Your task to perform on an android device: toggle data saver in the chrome app Image 0: 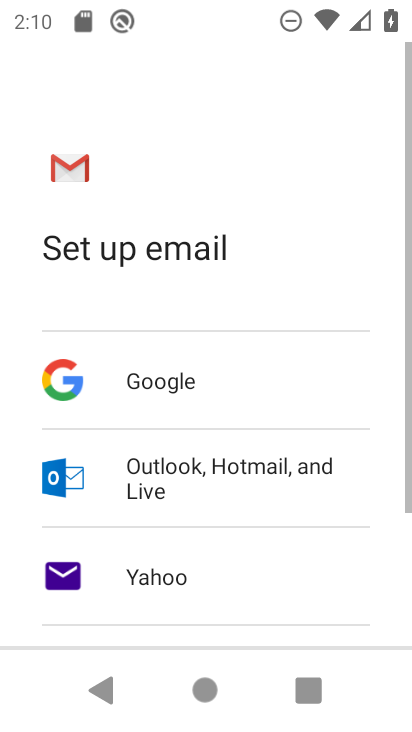
Step 0: press home button
Your task to perform on an android device: toggle data saver in the chrome app Image 1: 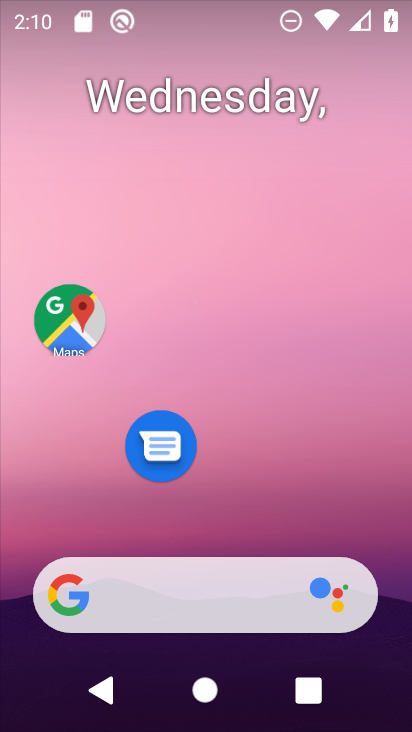
Step 1: drag from (339, 542) to (267, 137)
Your task to perform on an android device: toggle data saver in the chrome app Image 2: 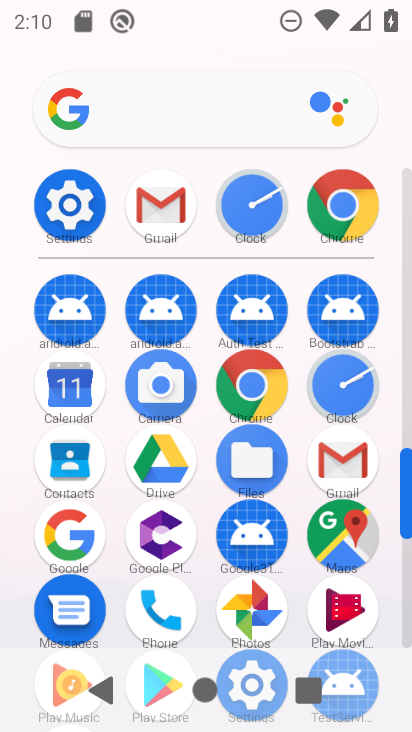
Step 2: click (328, 218)
Your task to perform on an android device: toggle data saver in the chrome app Image 3: 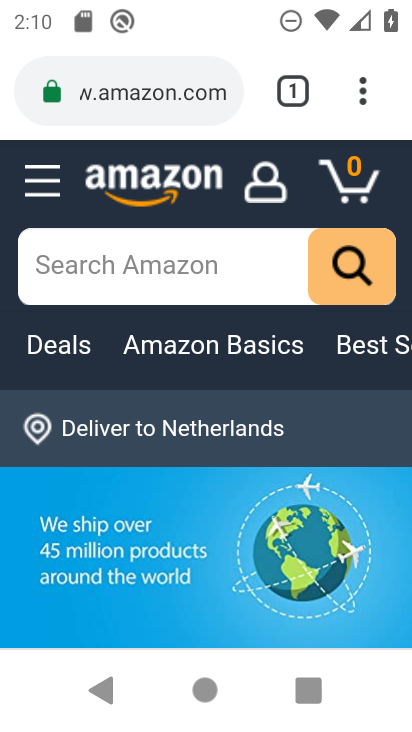
Step 3: click (357, 118)
Your task to perform on an android device: toggle data saver in the chrome app Image 4: 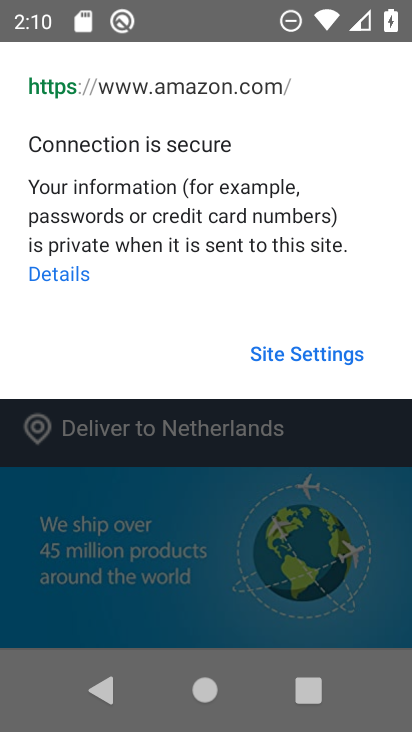
Step 4: click (223, 412)
Your task to perform on an android device: toggle data saver in the chrome app Image 5: 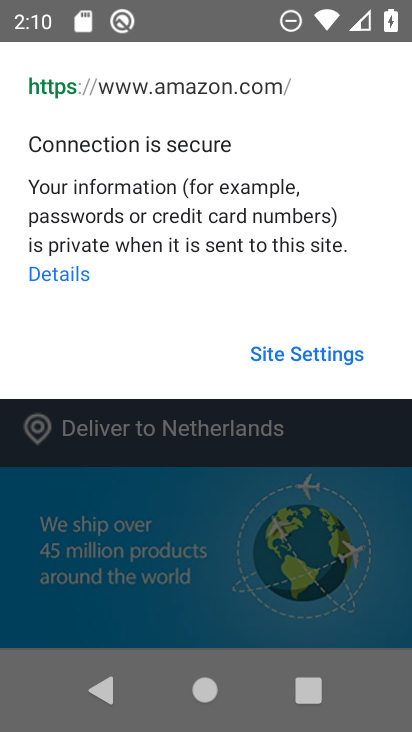
Step 5: click (299, 437)
Your task to perform on an android device: toggle data saver in the chrome app Image 6: 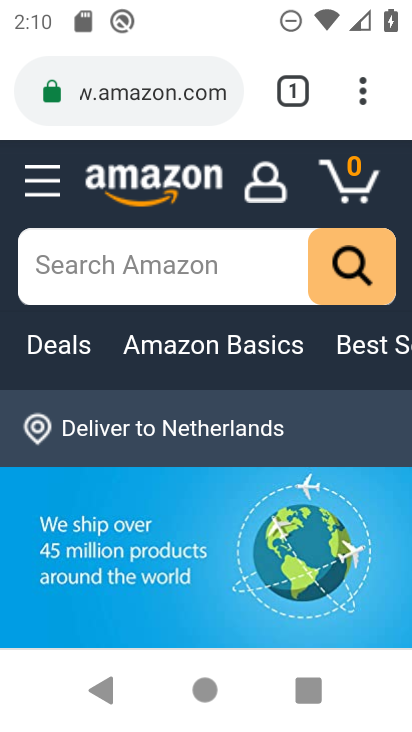
Step 6: click (352, 88)
Your task to perform on an android device: toggle data saver in the chrome app Image 7: 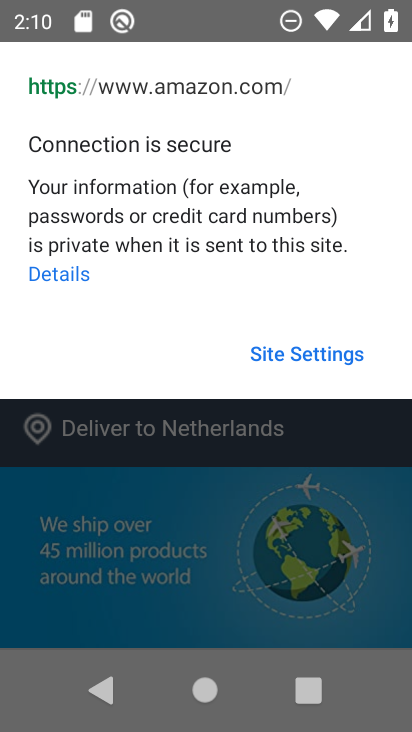
Step 7: click (37, 489)
Your task to perform on an android device: toggle data saver in the chrome app Image 8: 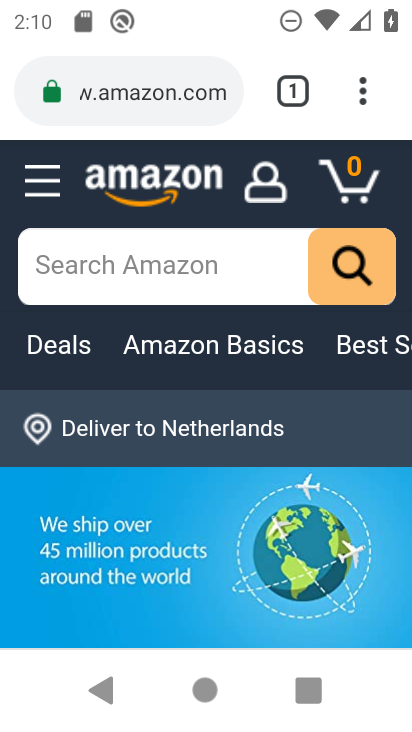
Step 8: click (366, 104)
Your task to perform on an android device: toggle data saver in the chrome app Image 9: 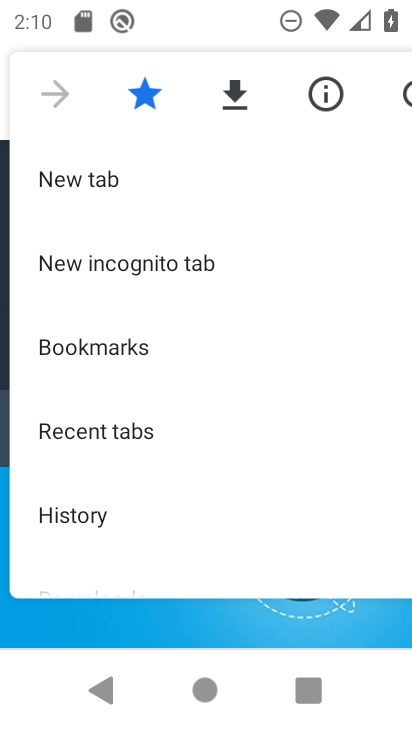
Step 9: drag from (194, 481) to (185, 333)
Your task to perform on an android device: toggle data saver in the chrome app Image 10: 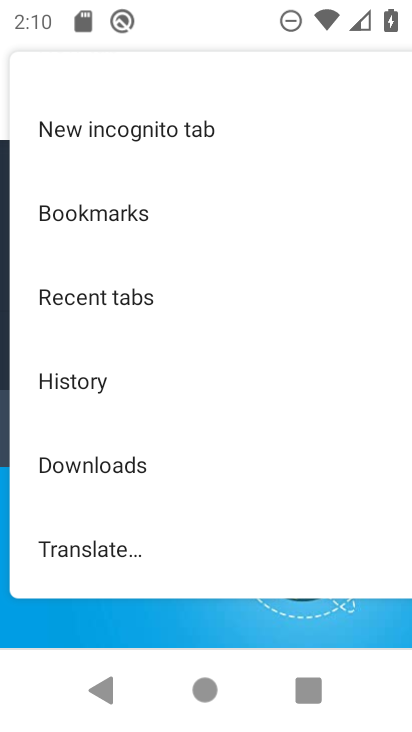
Step 10: drag from (178, 486) to (180, 370)
Your task to perform on an android device: toggle data saver in the chrome app Image 11: 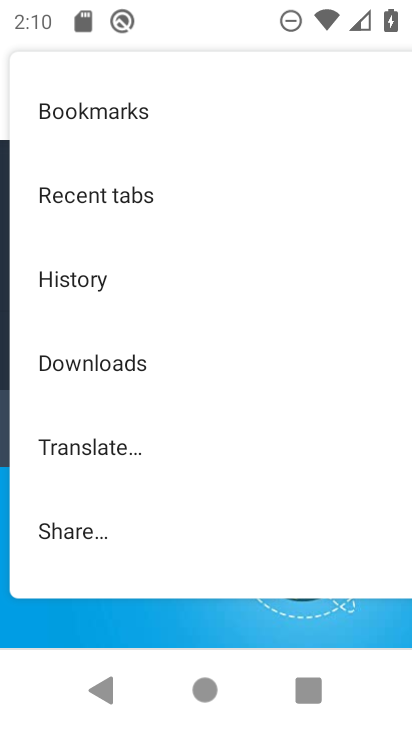
Step 11: drag from (169, 468) to (169, 330)
Your task to perform on an android device: toggle data saver in the chrome app Image 12: 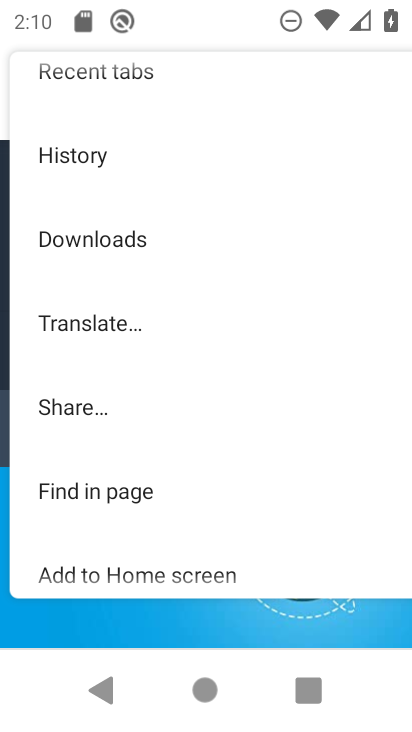
Step 12: drag from (150, 438) to (151, 336)
Your task to perform on an android device: toggle data saver in the chrome app Image 13: 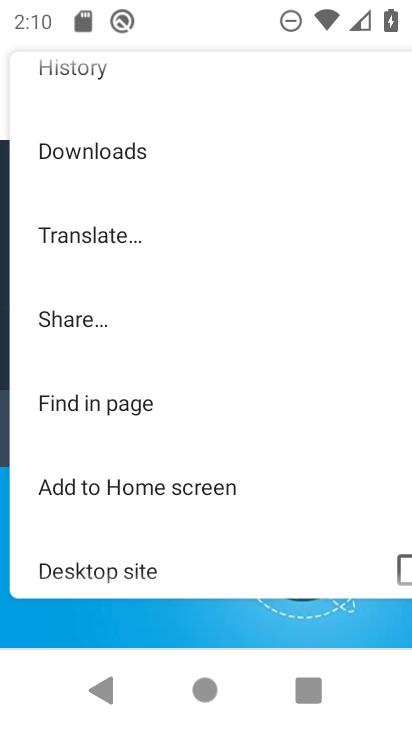
Step 13: drag from (23, 432) to (139, 146)
Your task to perform on an android device: toggle data saver in the chrome app Image 14: 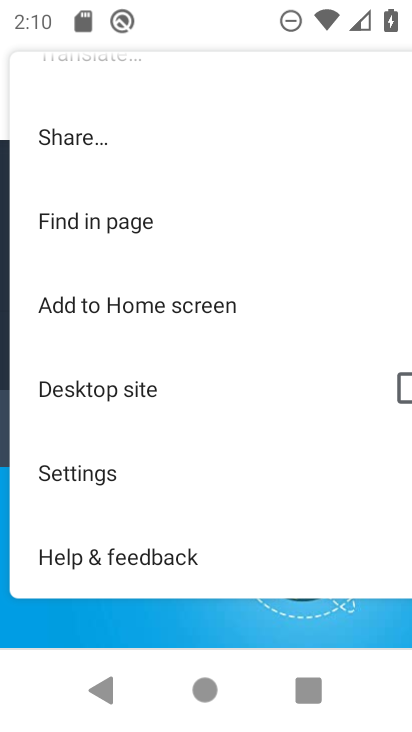
Step 14: click (145, 457)
Your task to perform on an android device: toggle data saver in the chrome app Image 15: 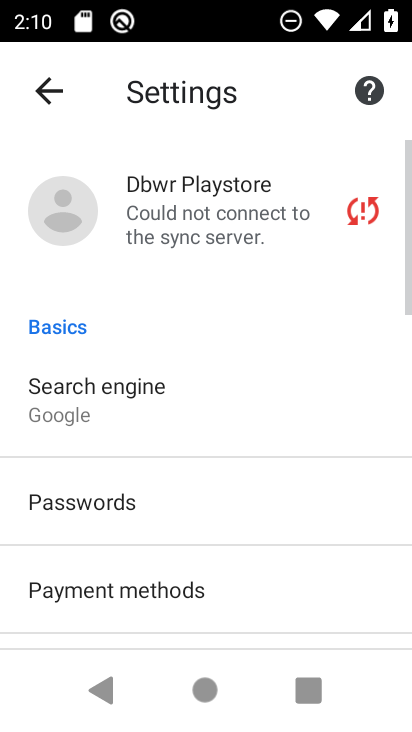
Step 15: drag from (145, 457) to (165, 254)
Your task to perform on an android device: toggle data saver in the chrome app Image 16: 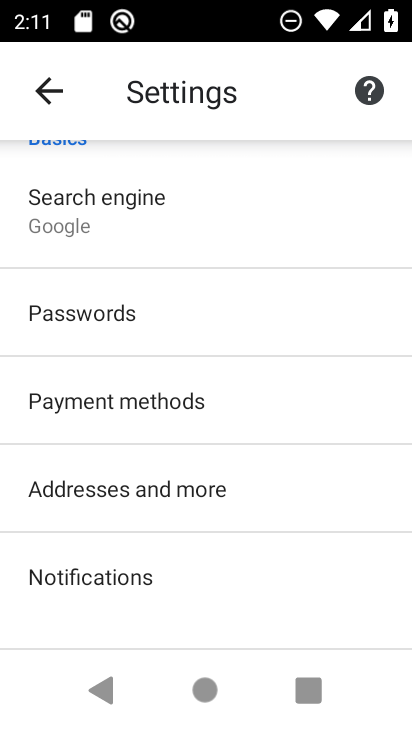
Step 16: drag from (165, 554) to (173, 337)
Your task to perform on an android device: toggle data saver in the chrome app Image 17: 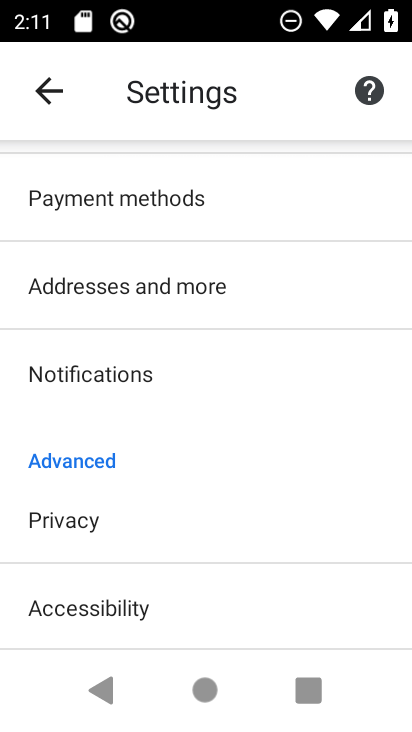
Step 17: drag from (173, 439) to (168, 294)
Your task to perform on an android device: toggle data saver in the chrome app Image 18: 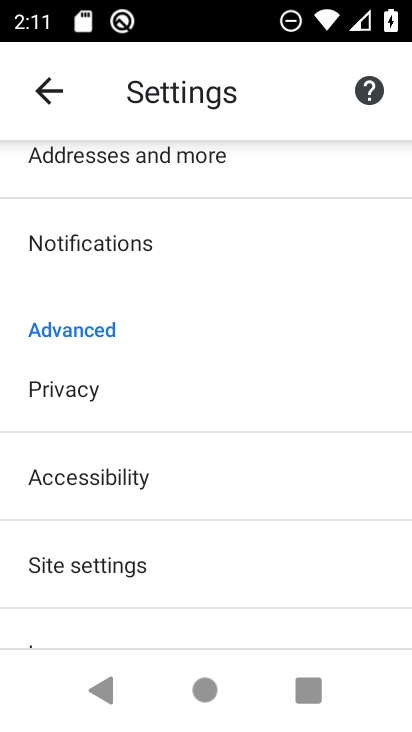
Step 18: drag from (177, 528) to (170, 333)
Your task to perform on an android device: toggle data saver in the chrome app Image 19: 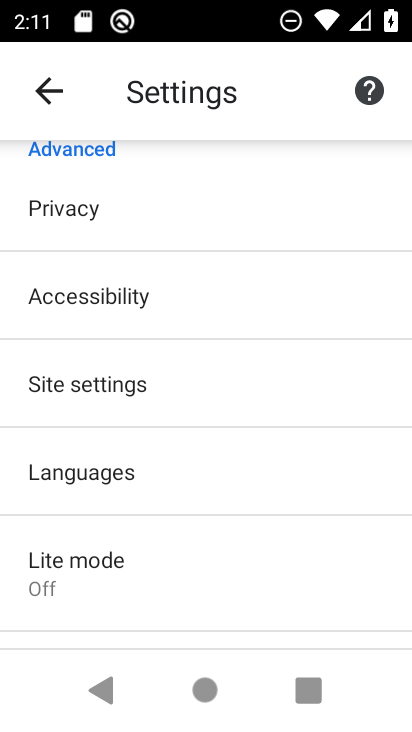
Step 19: click (174, 552)
Your task to perform on an android device: toggle data saver in the chrome app Image 20: 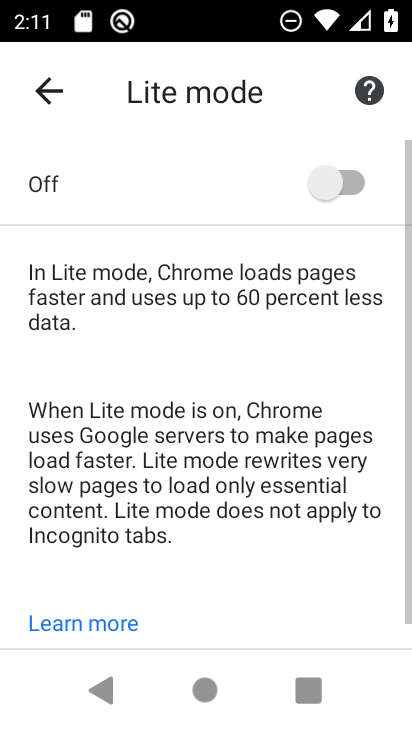
Step 20: click (331, 216)
Your task to perform on an android device: toggle data saver in the chrome app Image 21: 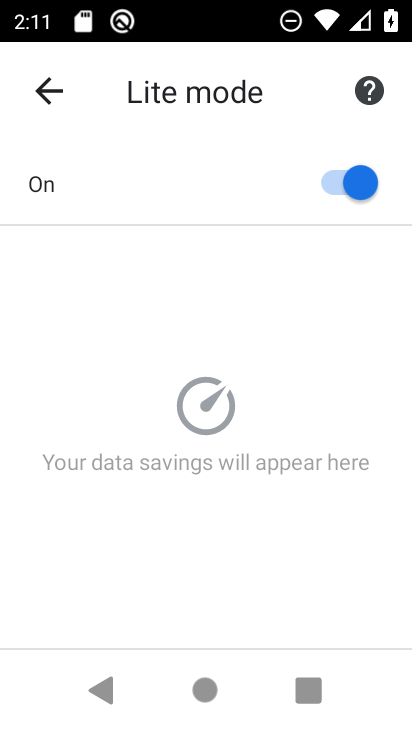
Step 21: task complete